Your task to perform on an android device: visit the assistant section in the google photos Image 0: 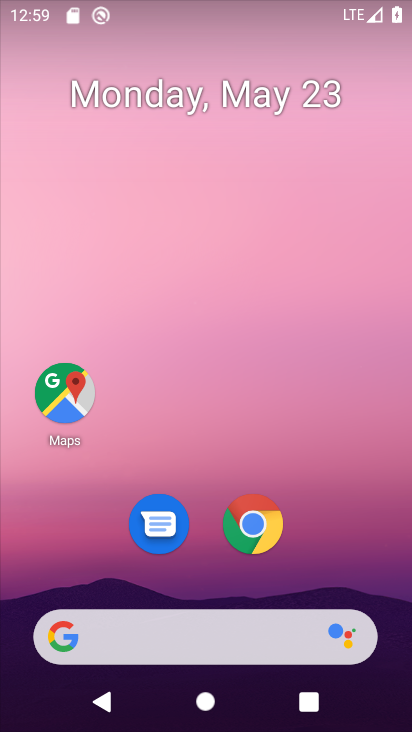
Step 0: drag from (325, 516) to (302, 44)
Your task to perform on an android device: visit the assistant section in the google photos Image 1: 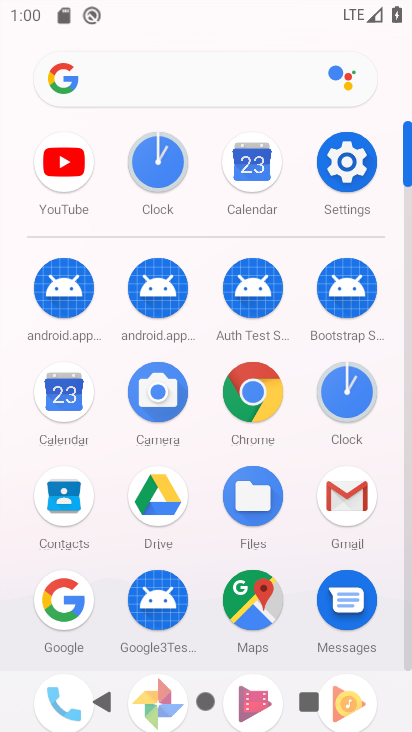
Step 1: drag from (292, 438) to (303, 211)
Your task to perform on an android device: visit the assistant section in the google photos Image 2: 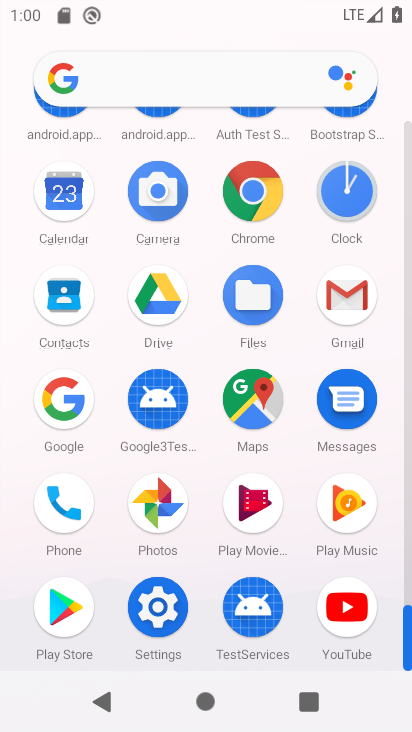
Step 2: click (167, 496)
Your task to perform on an android device: visit the assistant section in the google photos Image 3: 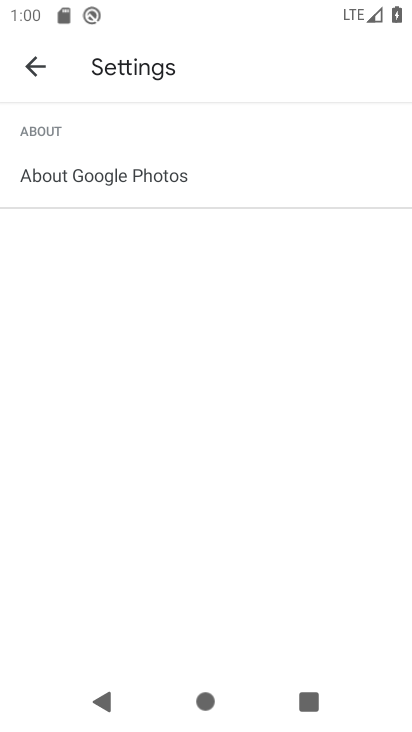
Step 3: click (41, 64)
Your task to perform on an android device: visit the assistant section in the google photos Image 4: 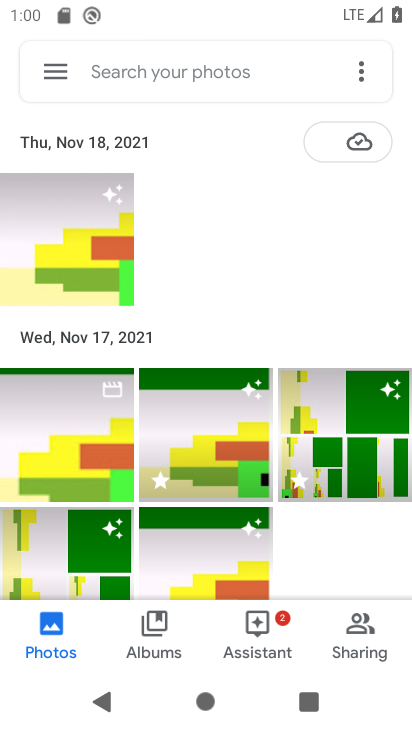
Step 4: click (261, 623)
Your task to perform on an android device: visit the assistant section in the google photos Image 5: 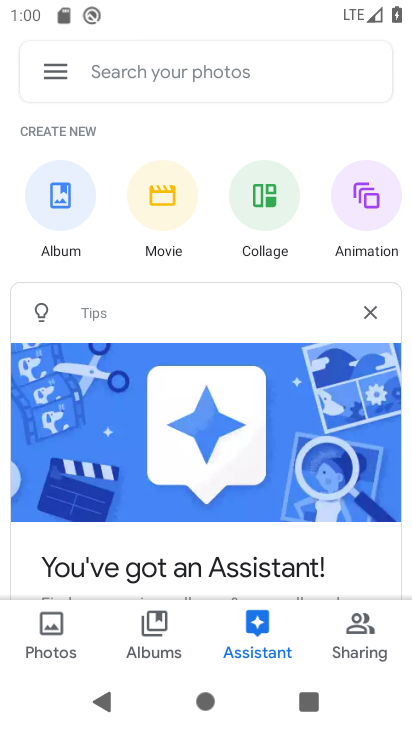
Step 5: task complete